Your task to perform on an android device: Open calendar and show me the fourth week of next month Image 0: 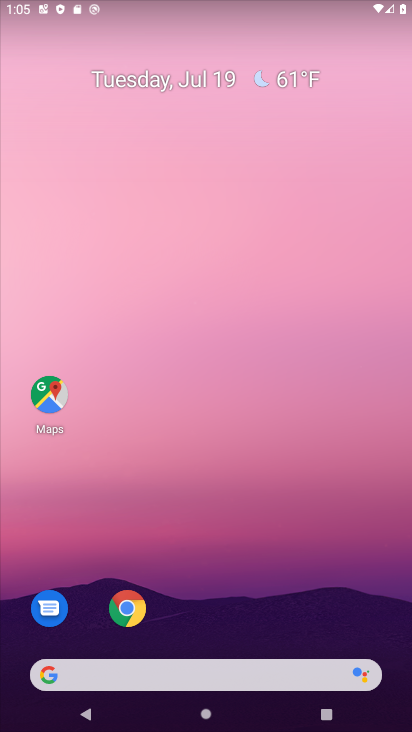
Step 0: click (249, 47)
Your task to perform on an android device: Open calendar and show me the fourth week of next month Image 1: 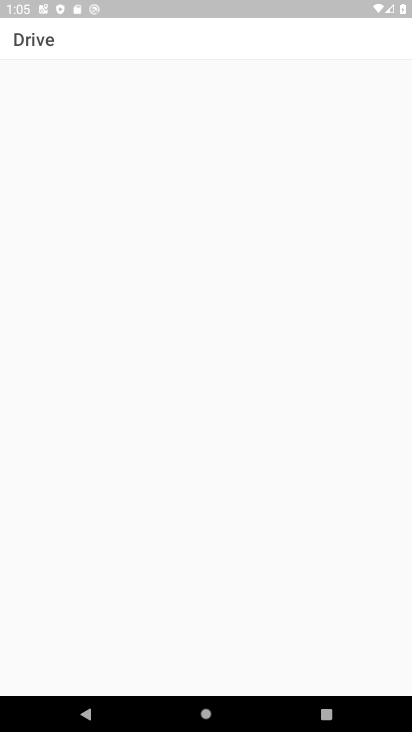
Step 1: press home button
Your task to perform on an android device: Open calendar and show me the fourth week of next month Image 2: 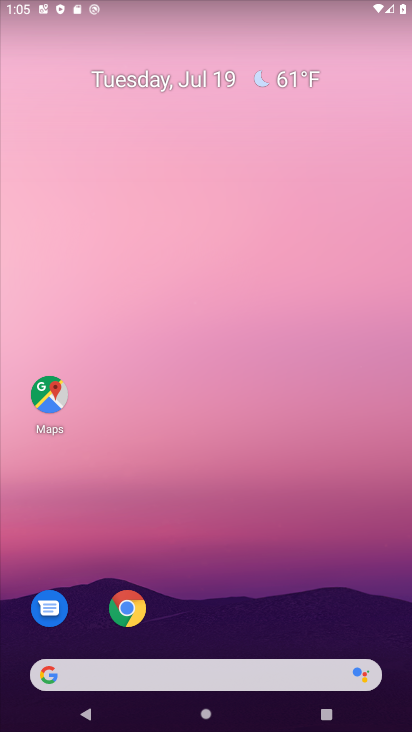
Step 2: drag from (238, 641) to (273, 0)
Your task to perform on an android device: Open calendar and show me the fourth week of next month Image 3: 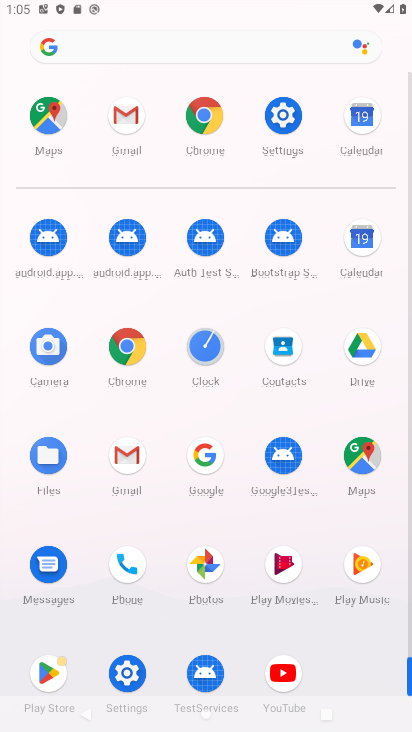
Step 3: click (356, 243)
Your task to perform on an android device: Open calendar and show me the fourth week of next month Image 4: 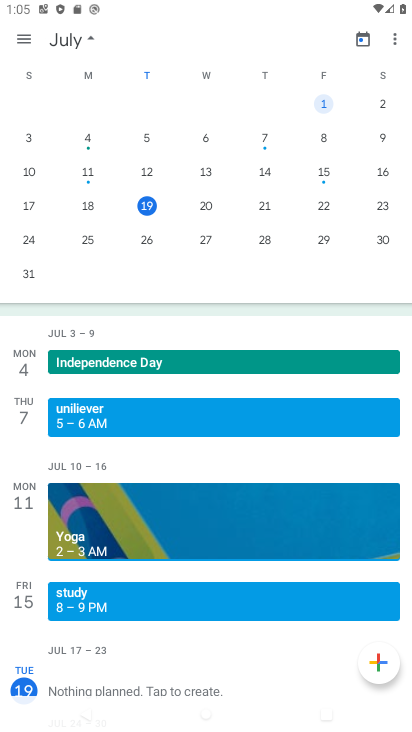
Step 4: drag from (351, 230) to (1, 240)
Your task to perform on an android device: Open calendar and show me the fourth week of next month Image 5: 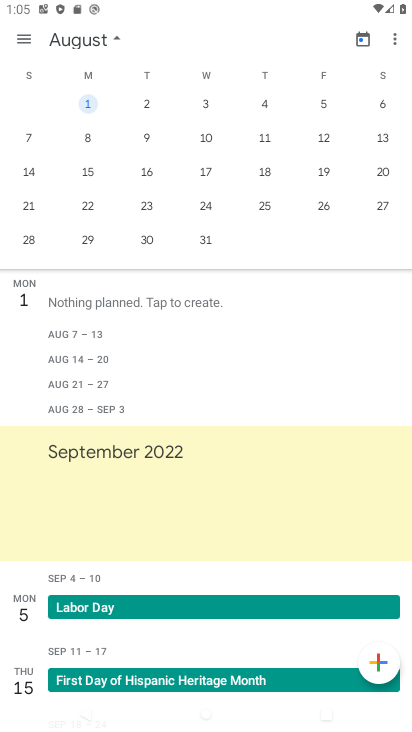
Step 5: click (25, 237)
Your task to perform on an android device: Open calendar and show me the fourth week of next month Image 6: 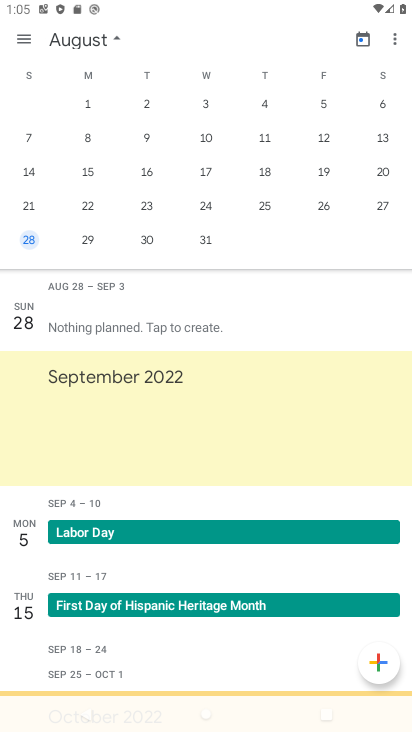
Step 6: task complete